Your task to perform on an android device: Check the news Image 0: 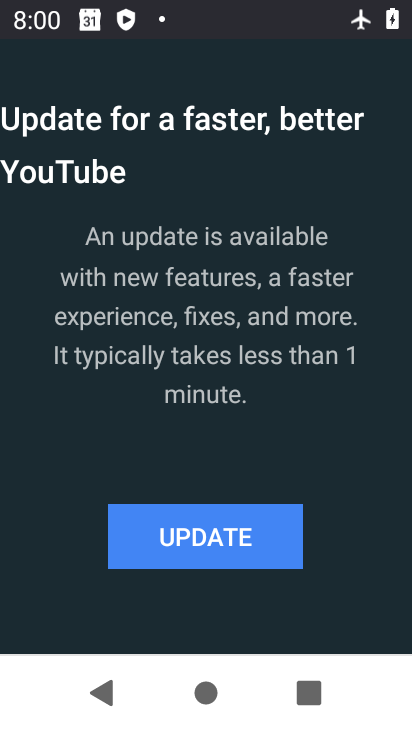
Step 0: press home button
Your task to perform on an android device: Check the news Image 1: 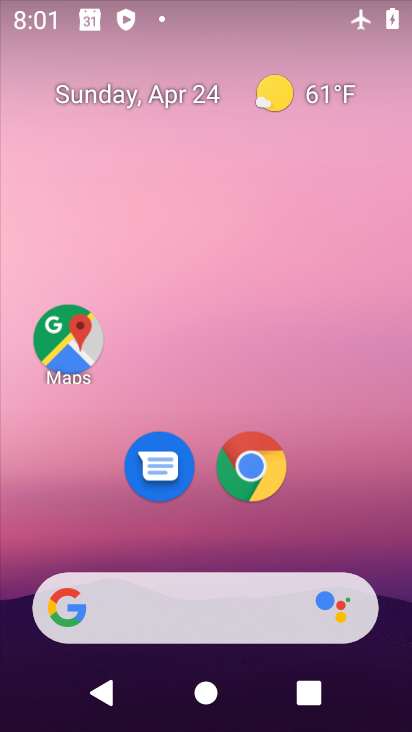
Step 1: click (172, 613)
Your task to perform on an android device: Check the news Image 2: 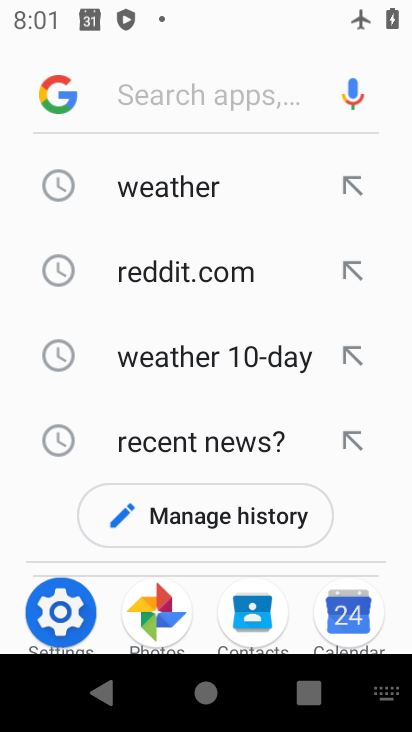
Step 2: type "news"
Your task to perform on an android device: Check the news Image 3: 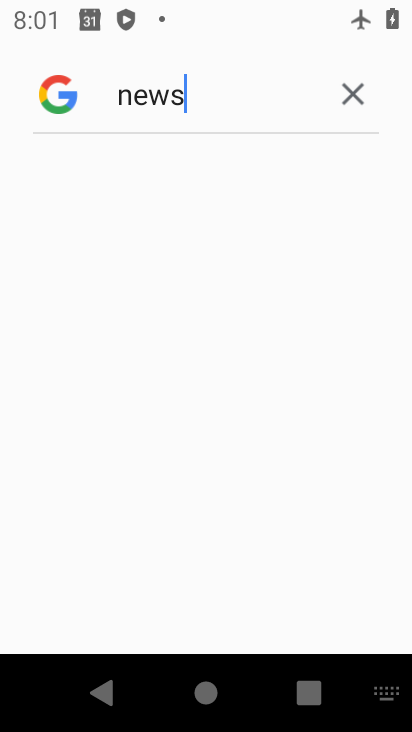
Step 3: task complete